Your task to perform on an android device: change keyboard looks Image 0: 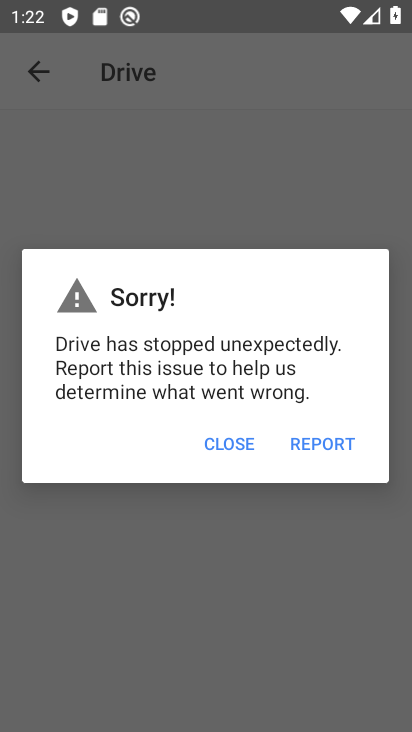
Step 0: press home button
Your task to perform on an android device: change keyboard looks Image 1: 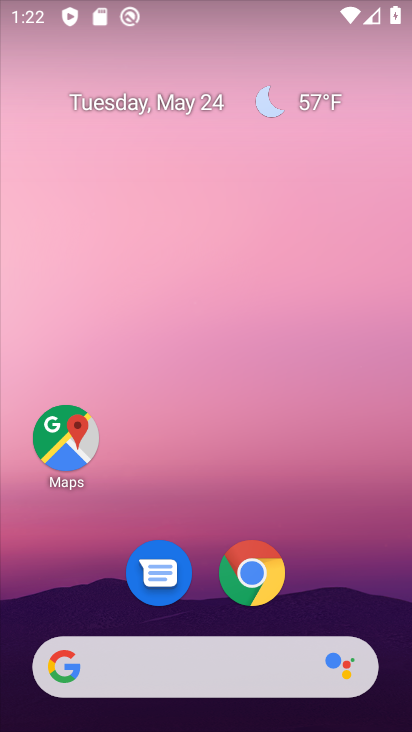
Step 1: drag from (373, 559) to (370, 79)
Your task to perform on an android device: change keyboard looks Image 2: 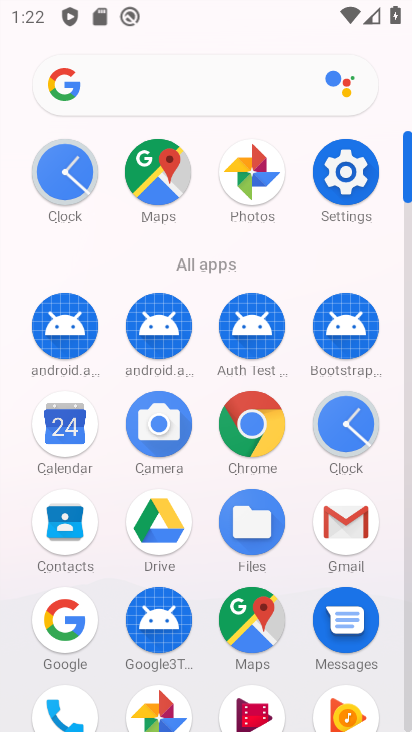
Step 2: click (353, 206)
Your task to perform on an android device: change keyboard looks Image 3: 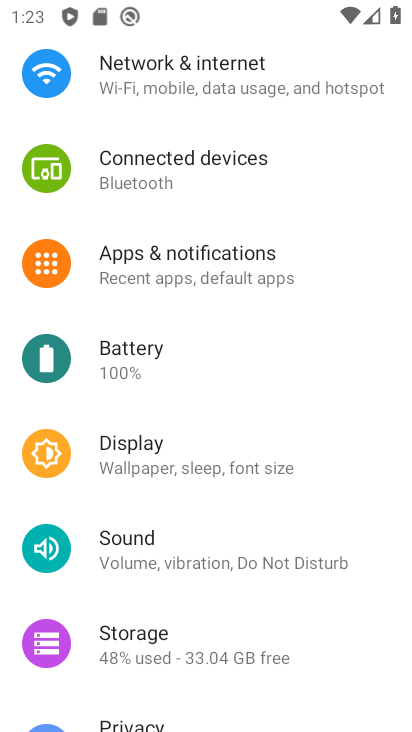
Step 3: drag from (236, 664) to (273, 181)
Your task to perform on an android device: change keyboard looks Image 4: 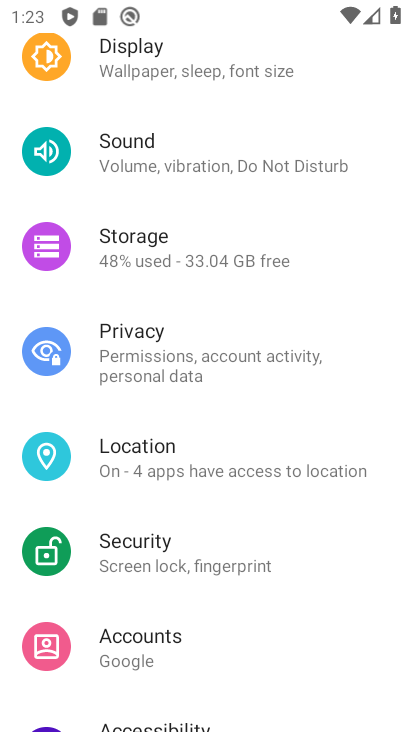
Step 4: drag from (269, 638) to (331, 219)
Your task to perform on an android device: change keyboard looks Image 5: 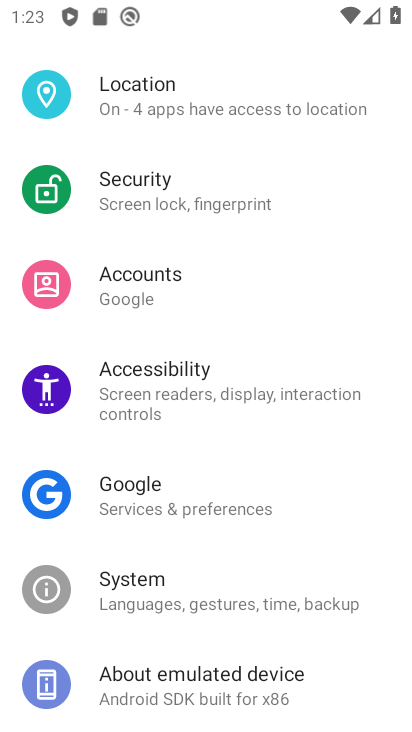
Step 5: click (223, 583)
Your task to perform on an android device: change keyboard looks Image 6: 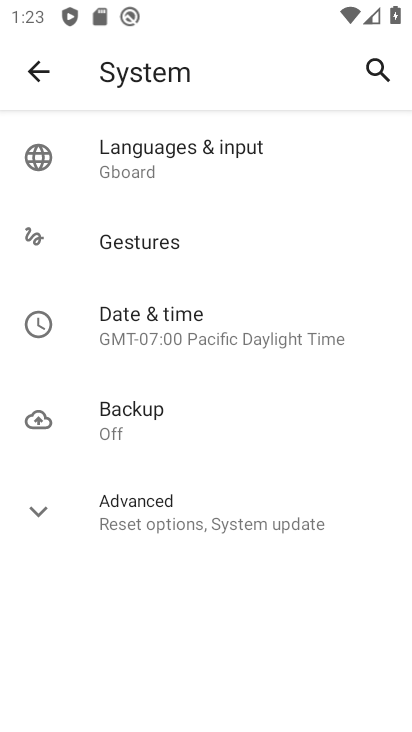
Step 6: click (331, 157)
Your task to perform on an android device: change keyboard looks Image 7: 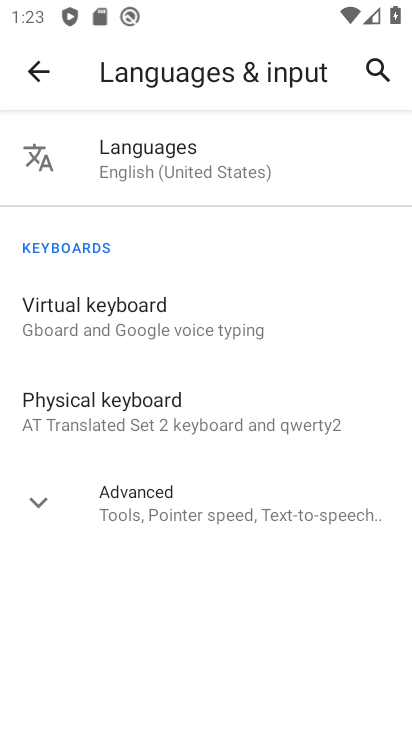
Step 7: click (252, 321)
Your task to perform on an android device: change keyboard looks Image 8: 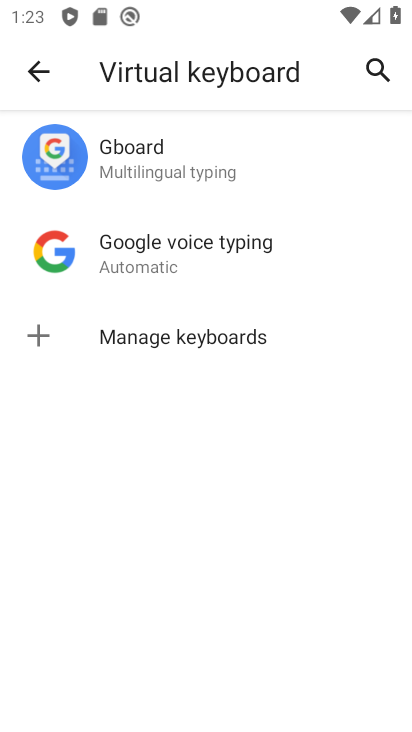
Step 8: click (174, 178)
Your task to perform on an android device: change keyboard looks Image 9: 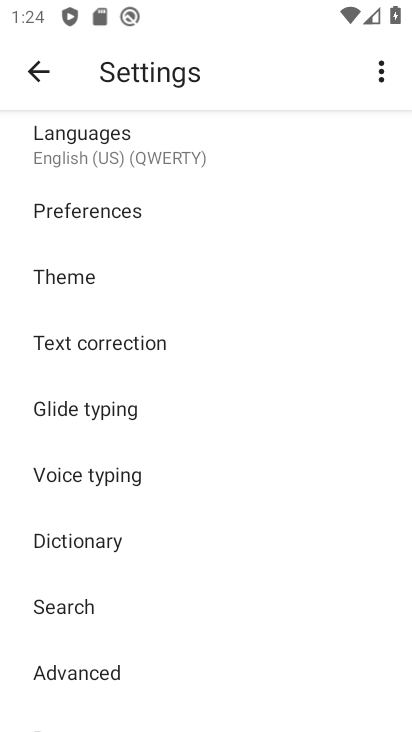
Step 9: click (96, 278)
Your task to perform on an android device: change keyboard looks Image 10: 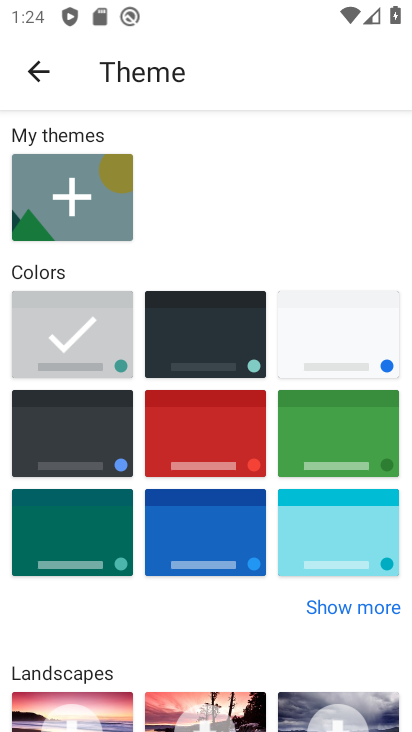
Step 10: click (251, 346)
Your task to perform on an android device: change keyboard looks Image 11: 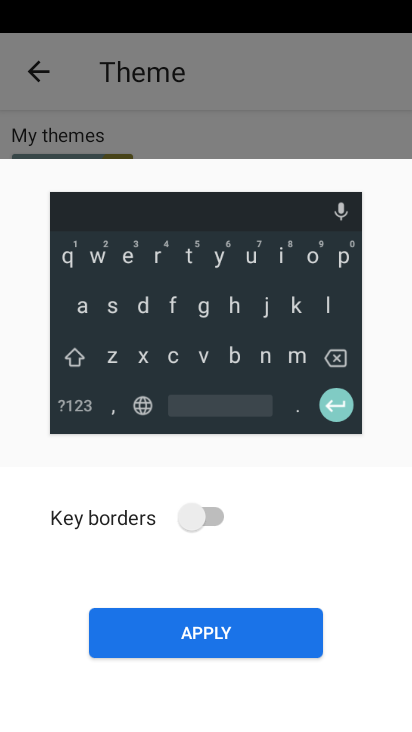
Step 11: click (205, 630)
Your task to perform on an android device: change keyboard looks Image 12: 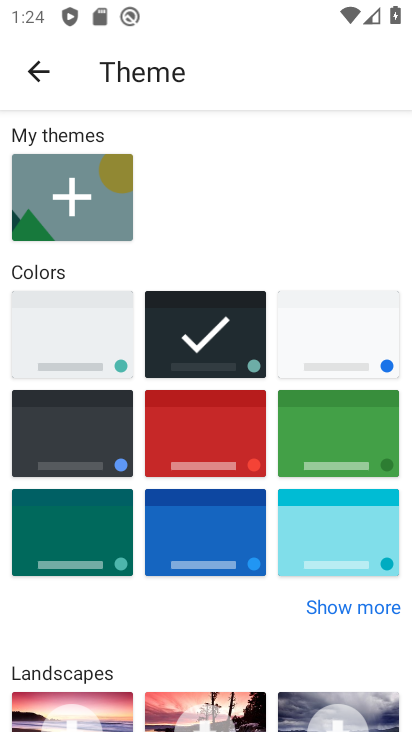
Step 12: task complete